Your task to perform on an android device: toggle location history Image 0: 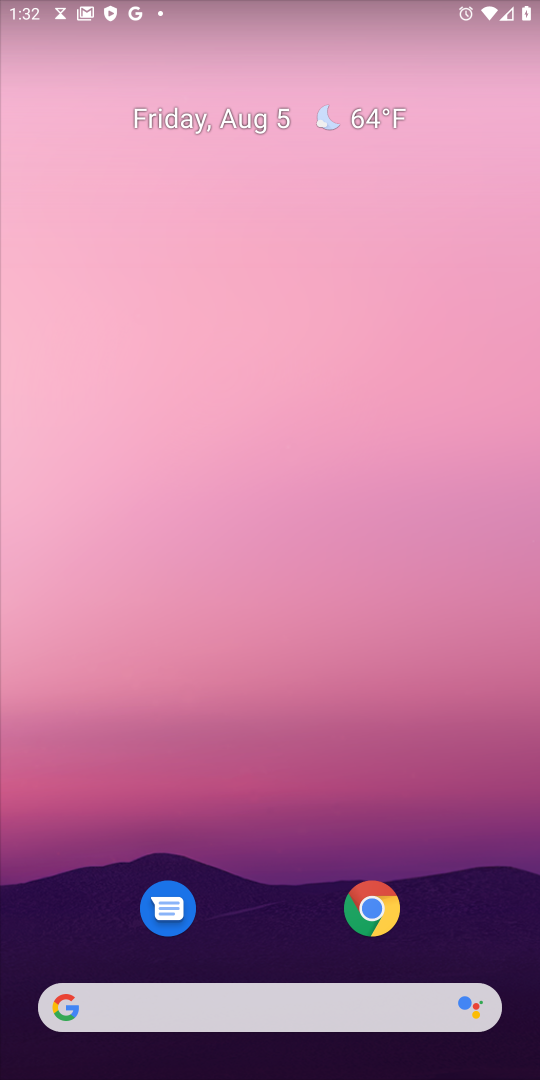
Step 0: click (516, 141)
Your task to perform on an android device: toggle location history Image 1: 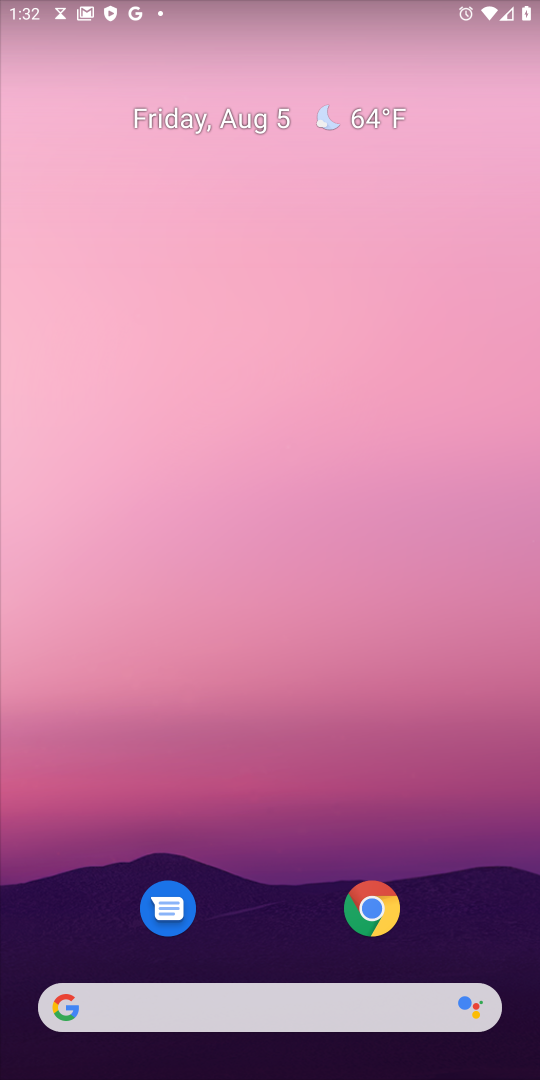
Step 1: drag from (354, 1021) to (283, 101)
Your task to perform on an android device: toggle location history Image 2: 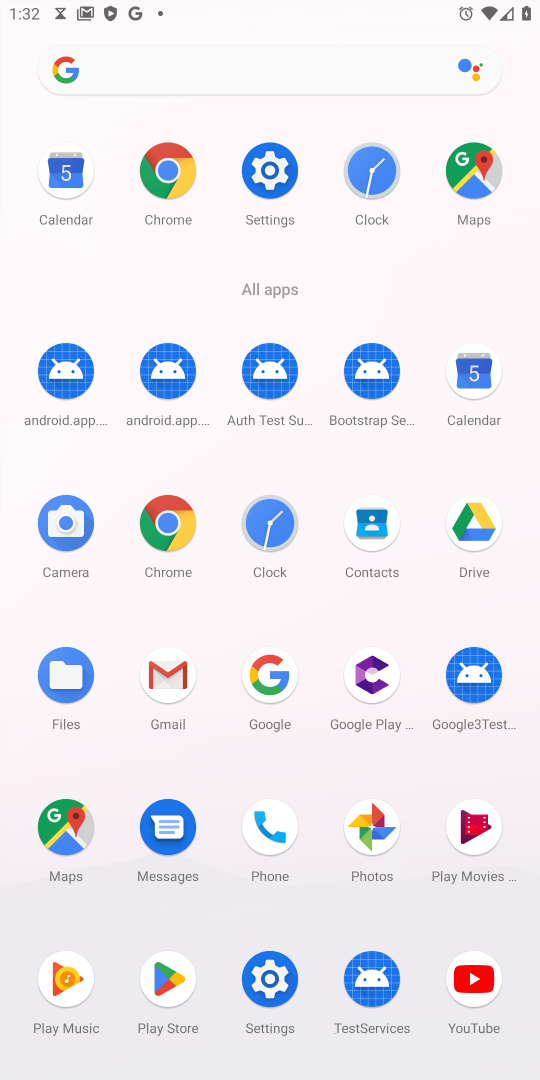
Step 2: click (82, 820)
Your task to perform on an android device: toggle location history Image 3: 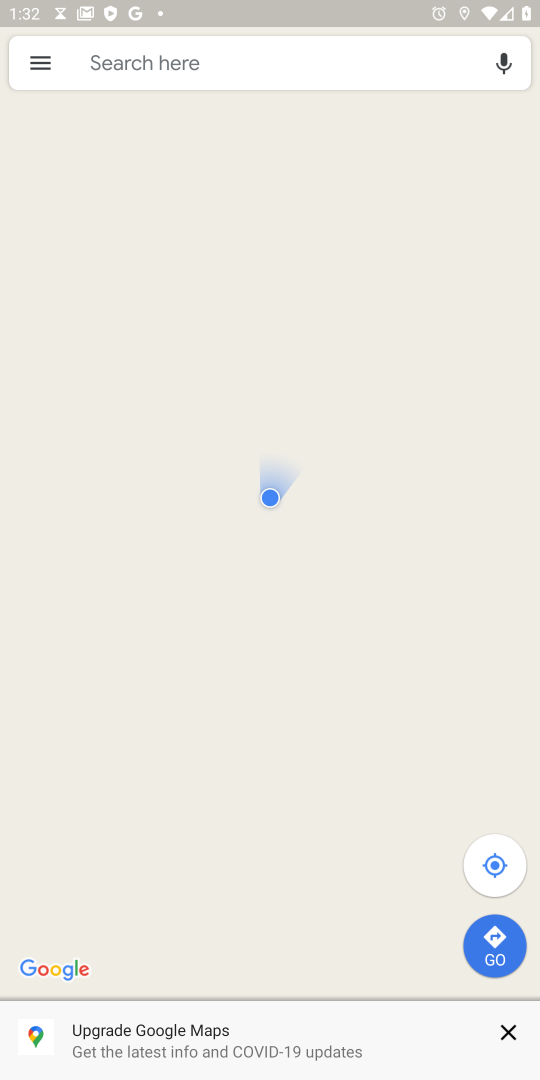
Step 3: click (39, 66)
Your task to perform on an android device: toggle location history Image 4: 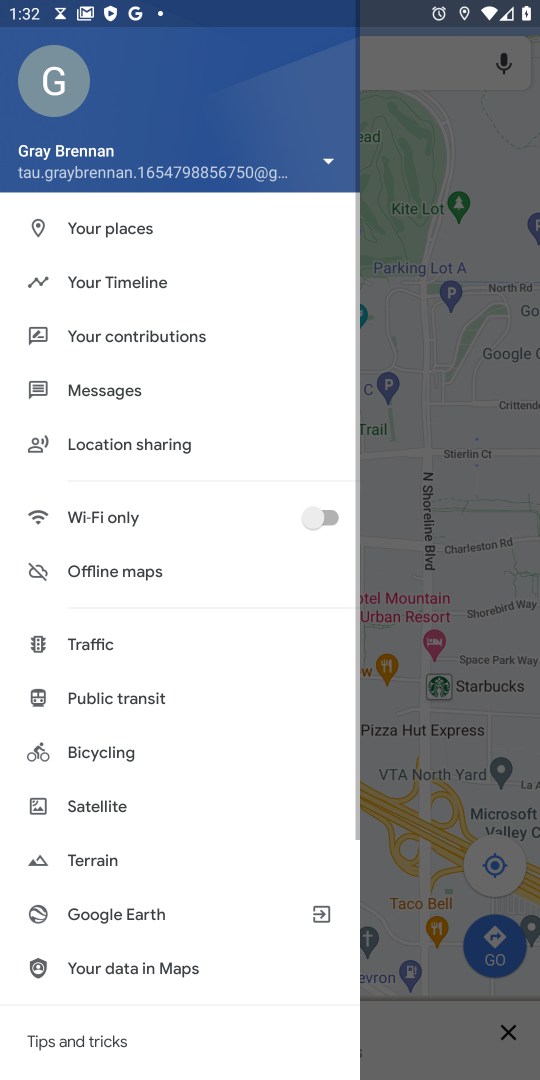
Step 4: click (92, 277)
Your task to perform on an android device: toggle location history Image 5: 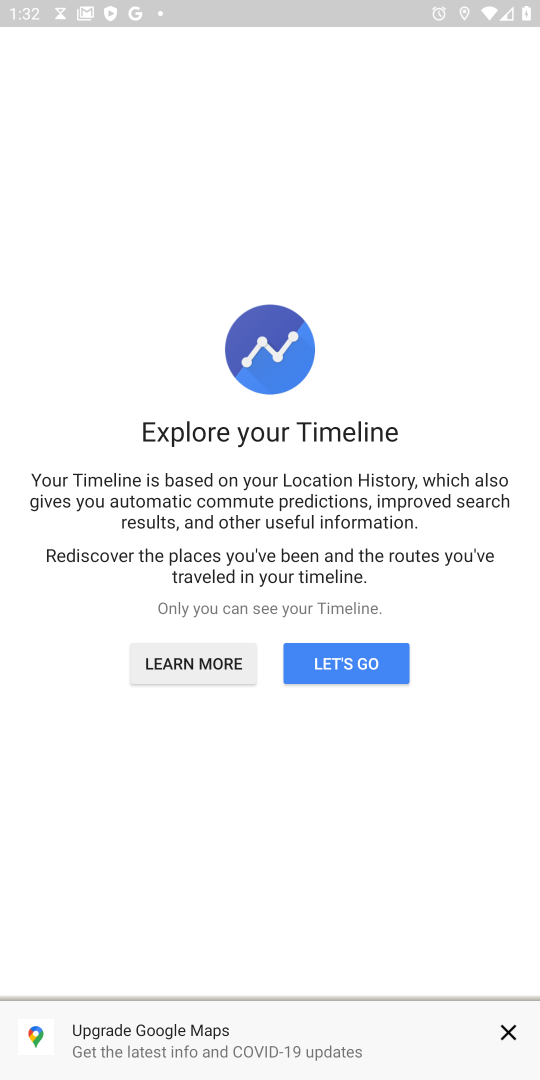
Step 5: click (316, 657)
Your task to perform on an android device: toggle location history Image 6: 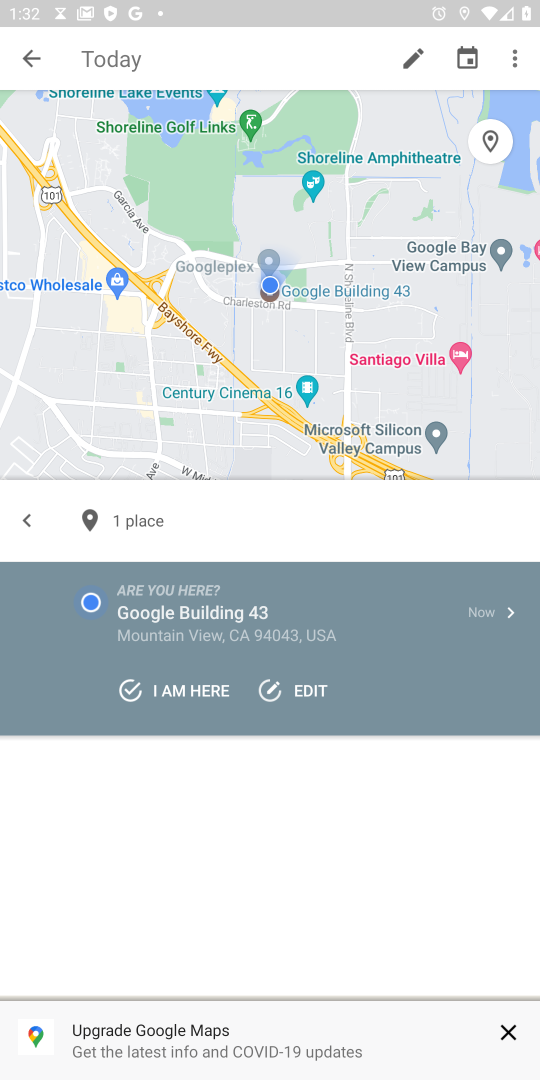
Step 6: click (505, 72)
Your task to perform on an android device: toggle location history Image 7: 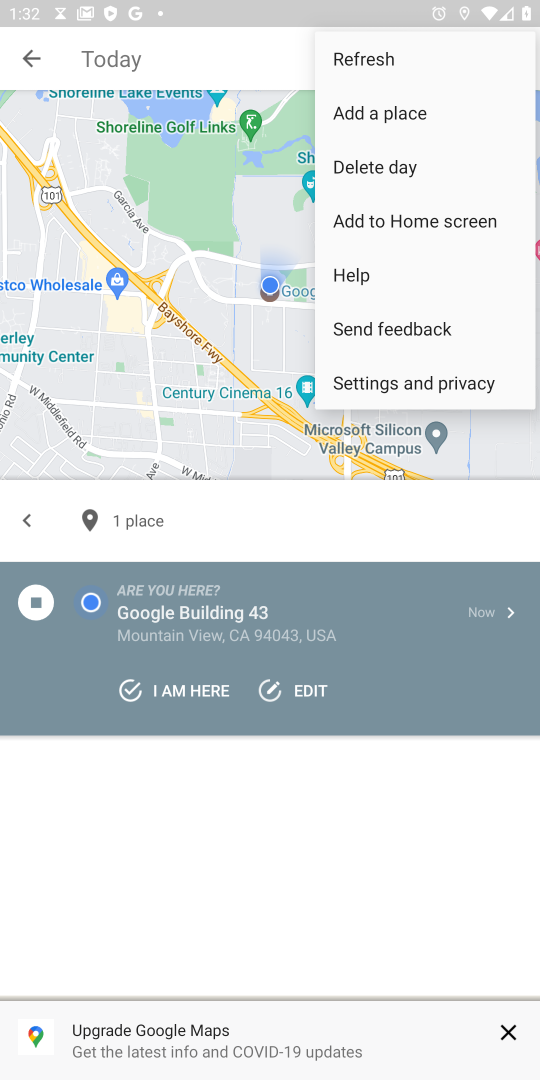
Step 7: click (450, 369)
Your task to perform on an android device: toggle location history Image 8: 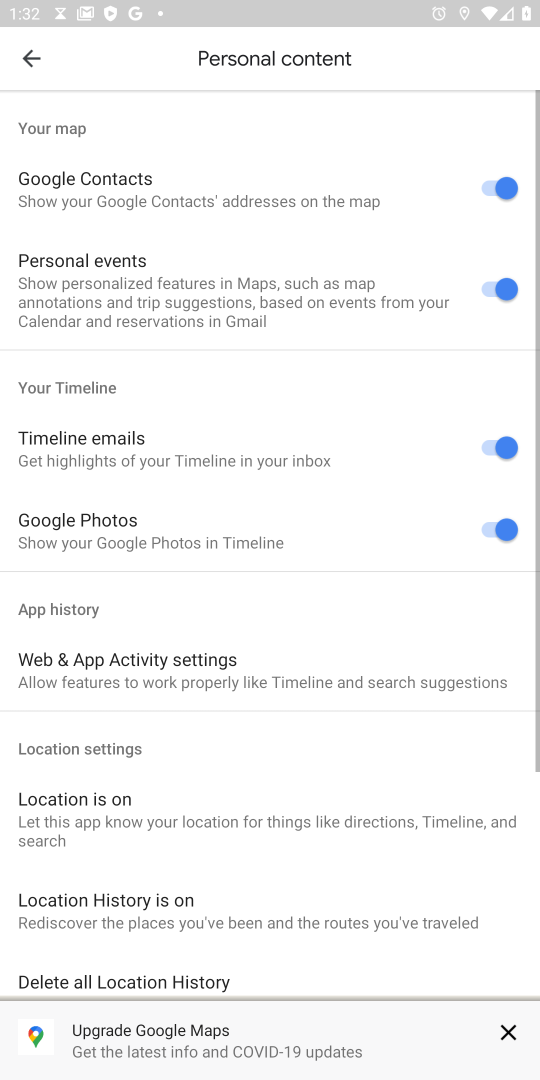
Step 8: drag from (71, 912) to (149, 185)
Your task to perform on an android device: toggle location history Image 9: 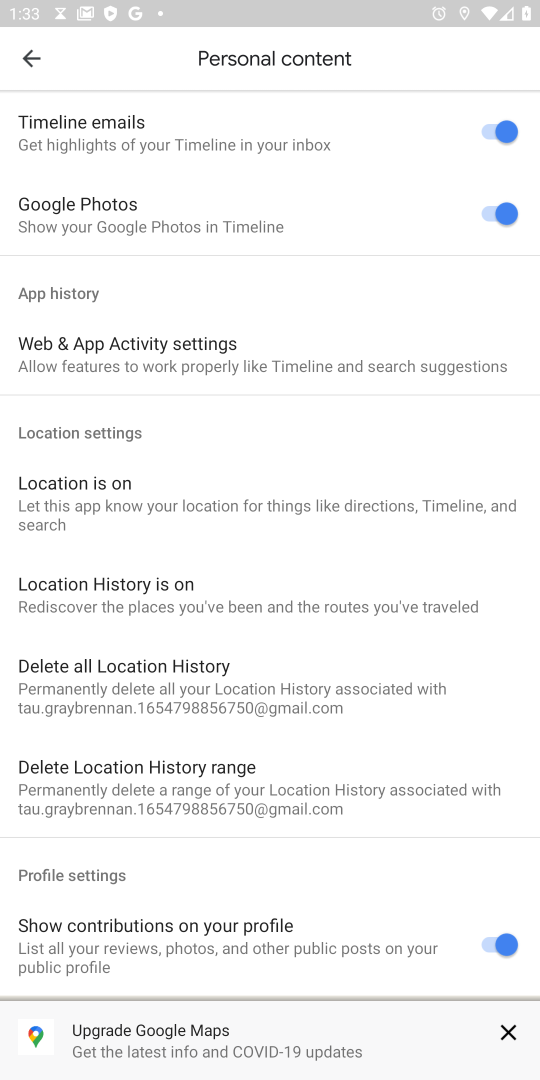
Step 9: drag from (223, 771) to (236, 603)
Your task to perform on an android device: toggle location history Image 10: 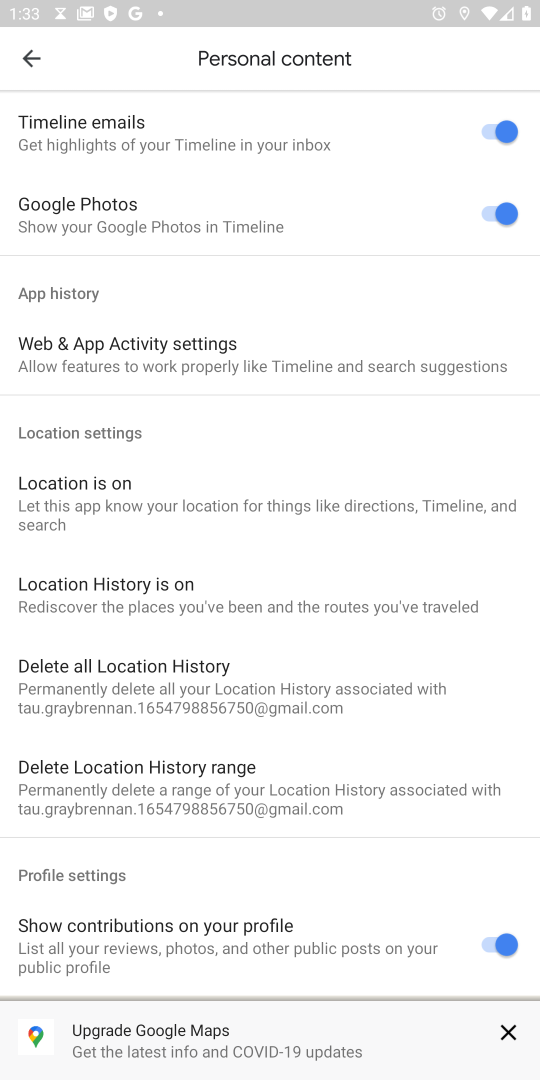
Step 10: click (150, 590)
Your task to perform on an android device: toggle location history Image 11: 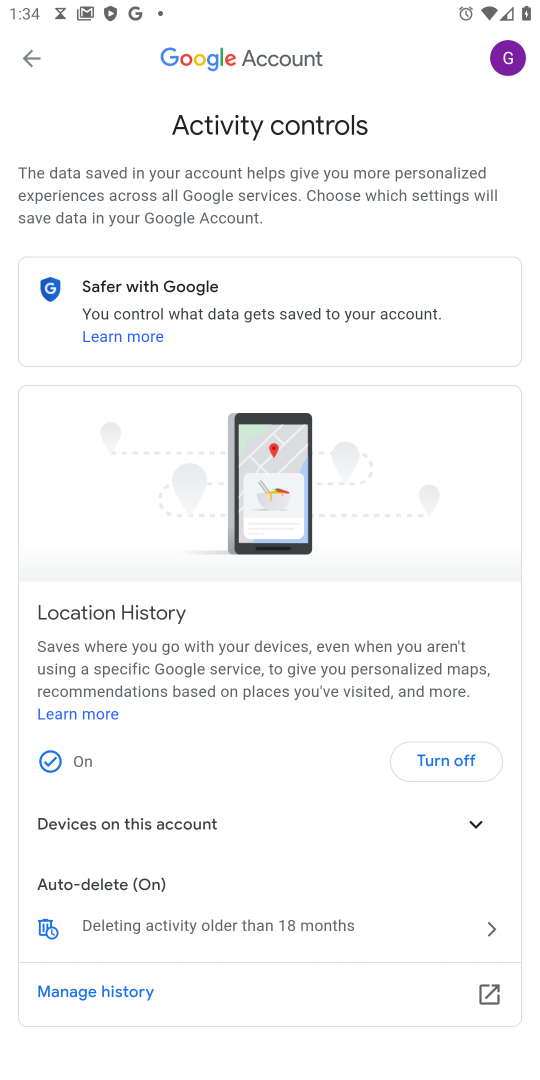
Step 11: click (458, 751)
Your task to perform on an android device: toggle location history Image 12: 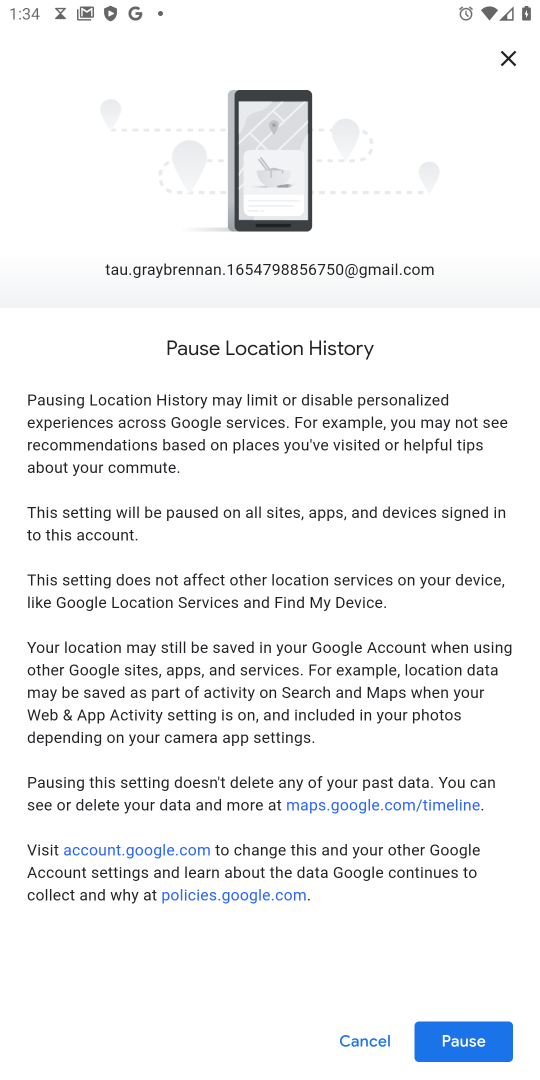
Step 12: click (455, 1033)
Your task to perform on an android device: toggle location history Image 13: 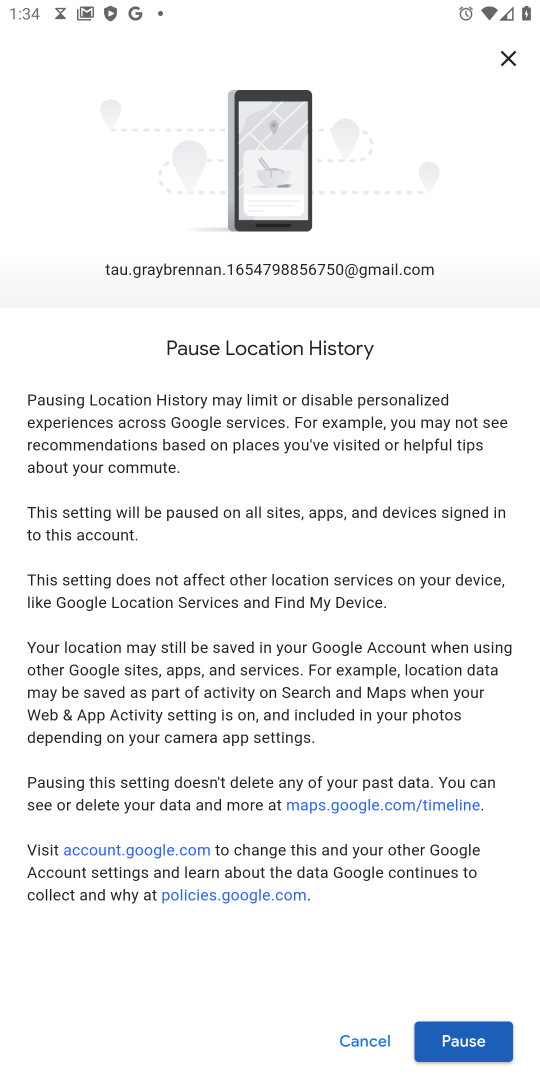
Step 13: click (461, 1051)
Your task to perform on an android device: toggle location history Image 14: 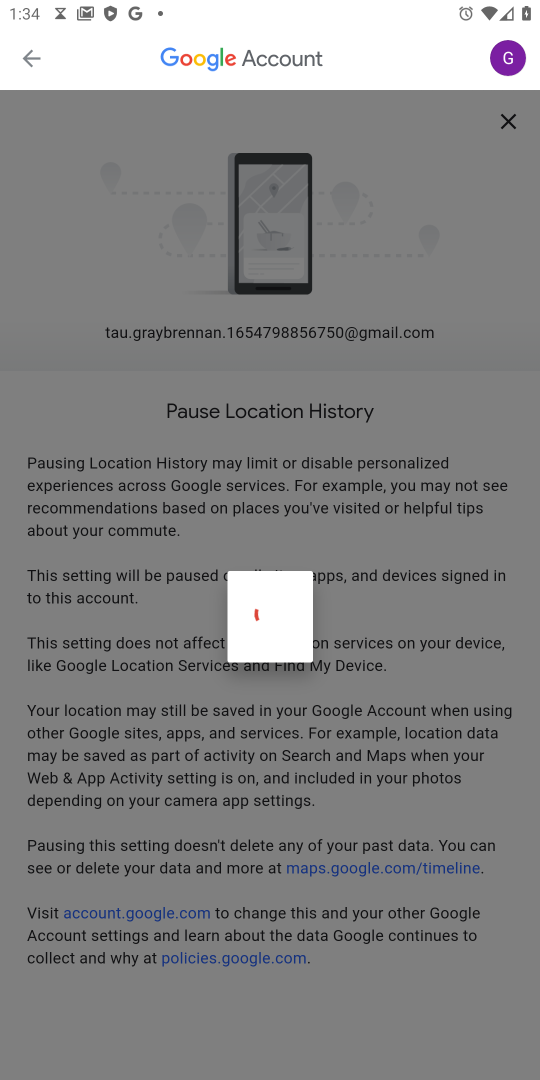
Step 14: click (461, 1051)
Your task to perform on an android device: toggle location history Image 15: 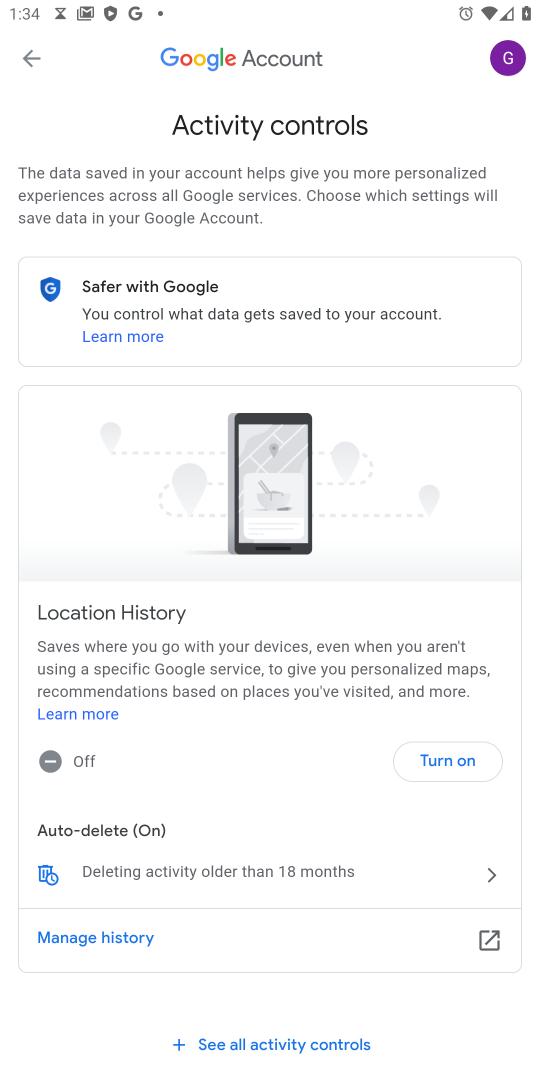
Step 15: task complete